Your task to perform on an android device: turn off improve location accuracy Image 0: 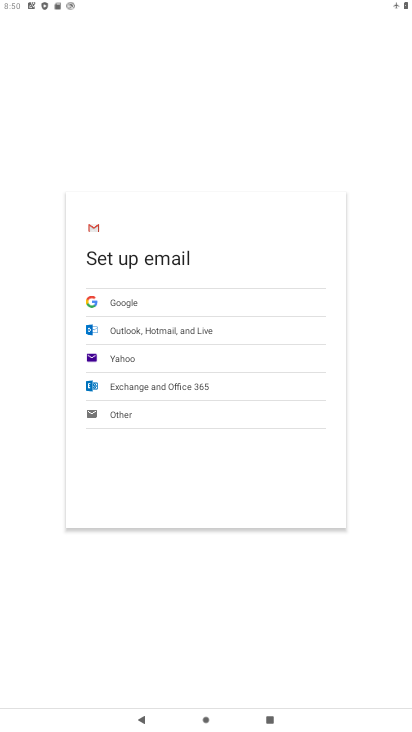
Step 0: press home button
Your task to perform on an android device: turn off improve location accuracy Image 1: 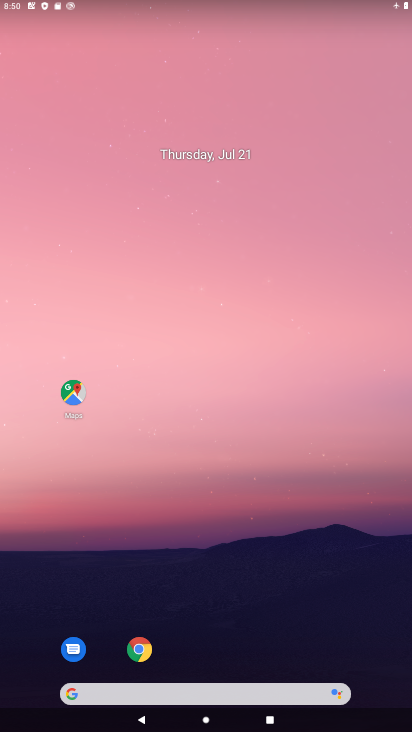
Step 1: drag from (216, 661) to (210, 10)
Your task to perform on an android device: turn off improve location accuracy Image 2: 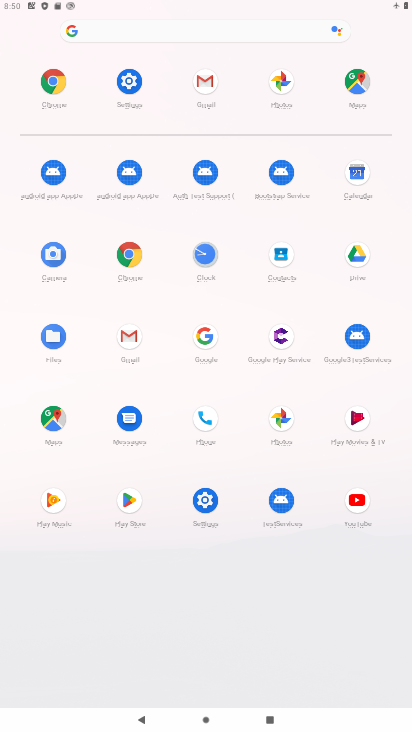
Step 2: click (134, 91)
Your task to perform on an android device: turn off improve location accuracy Image 3: 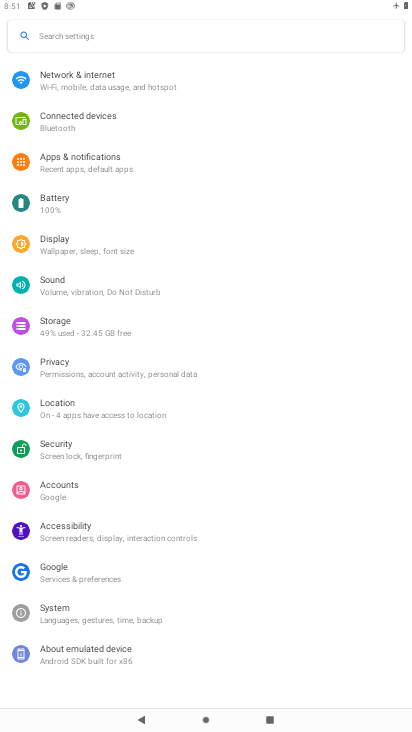
Step 3: click (83, 409)
Your task to perform on an android device: turn off improve location accuracy Image 4: 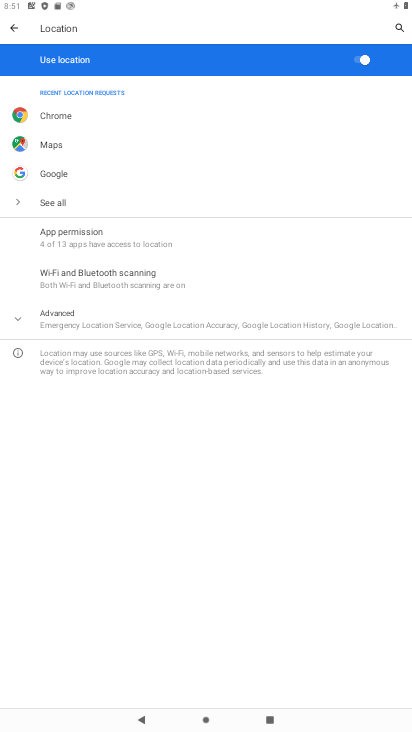
Step 4: click (116, 328)
Your task to perform on an android device: turn off improve location accuracy Image 5: 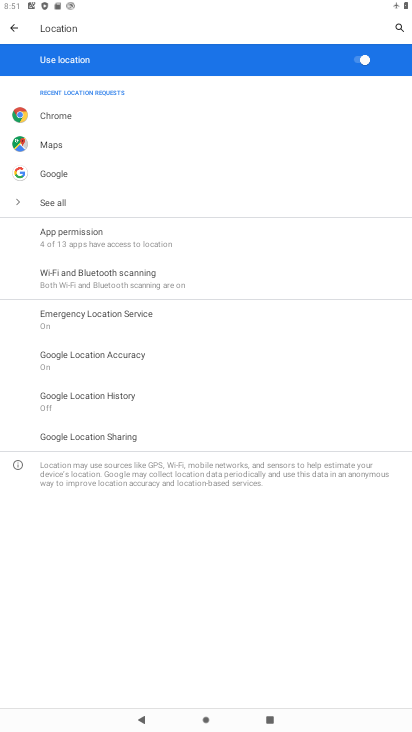
Step 5: click (132, 362)
Your task to perform on an android device: turn off improve location accuracy Image 6: 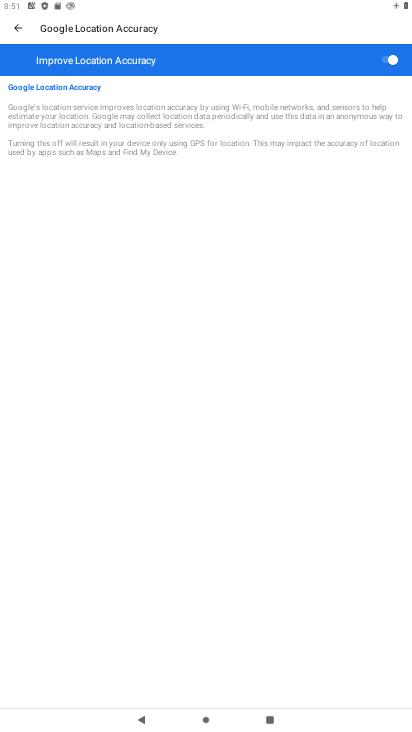
Step 6: click (361, 64)
Your task to perform on an android device: turn off improve location accuracy Image 7: 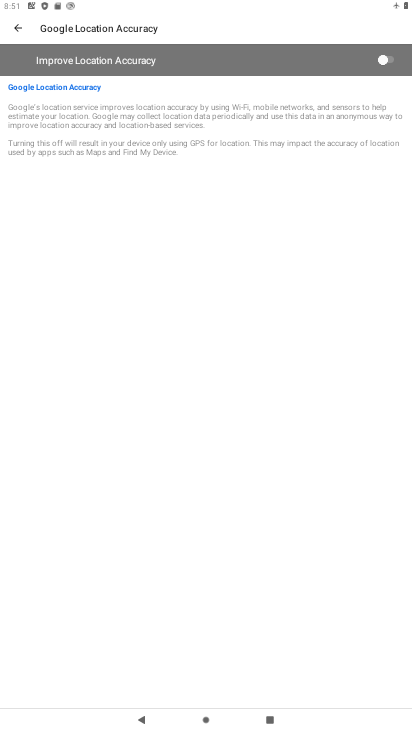
Step 7: task complete